Your task to perform on an android device: change the clock style Image 0: 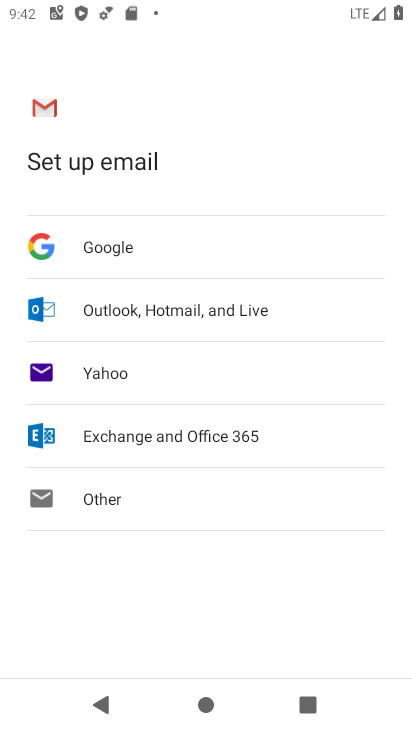
Step 0: press home button
Your task to perform on an android device: change the clock style Image 1: 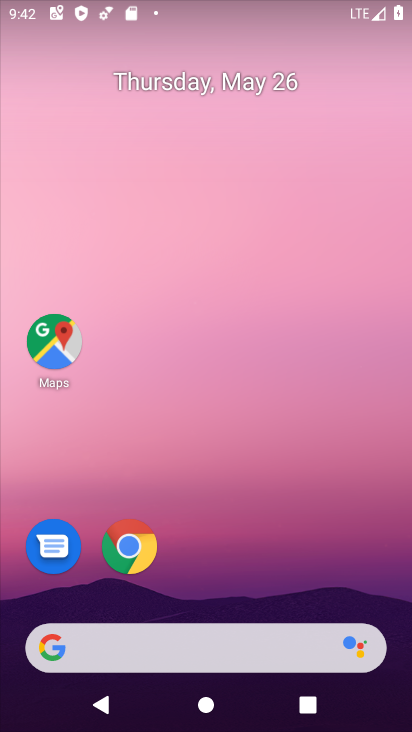
Step 1: drag from (387, 557) to (402, 154)
Your task to perform on an android device: change the clock style Image 2: 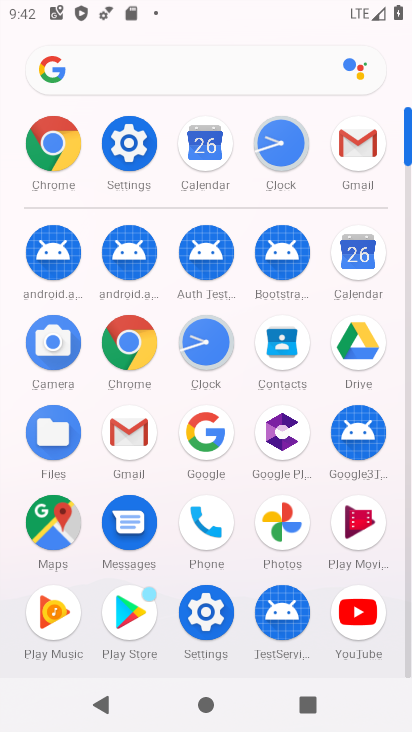
Step 2: click (210, 351)
Your task to perform on an android device: change the clock style Image 3: 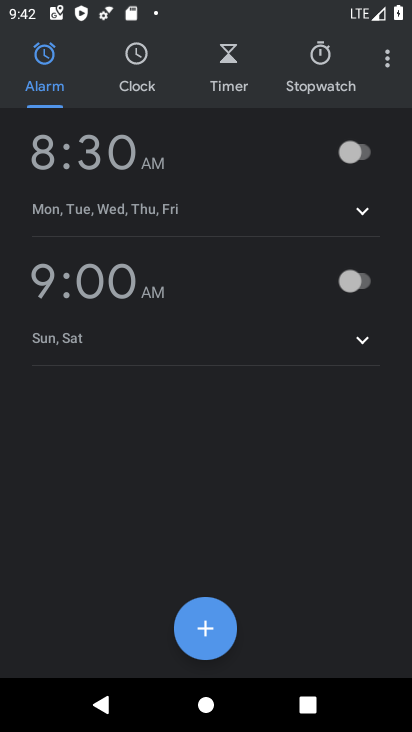
Step 3: drag from (389, 66) to (263, 107)
Your task to perform on an android device: change the clock style Image 4: 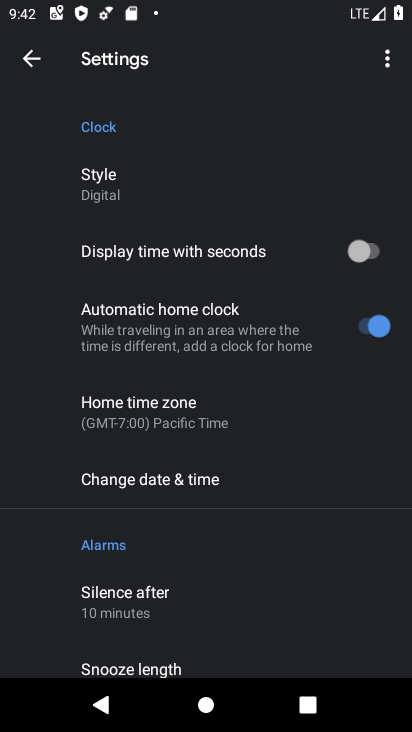
Step 4: click (114, 186)
Your task to perform on an android device: change the clock style Image 5: 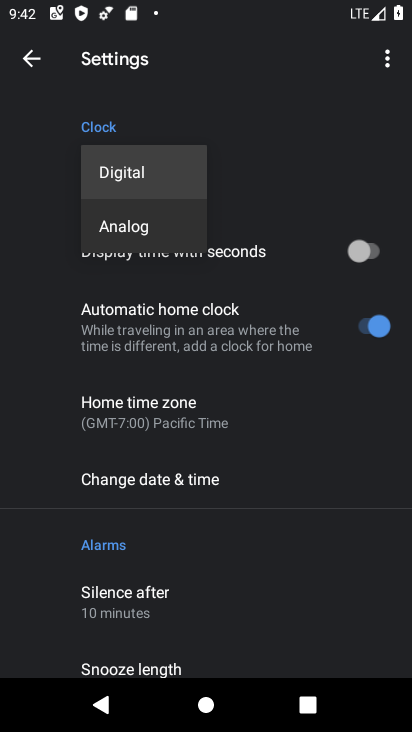
Step 5: click (140, 224)
Your task to perform on an android device: change the clock style Image 6: 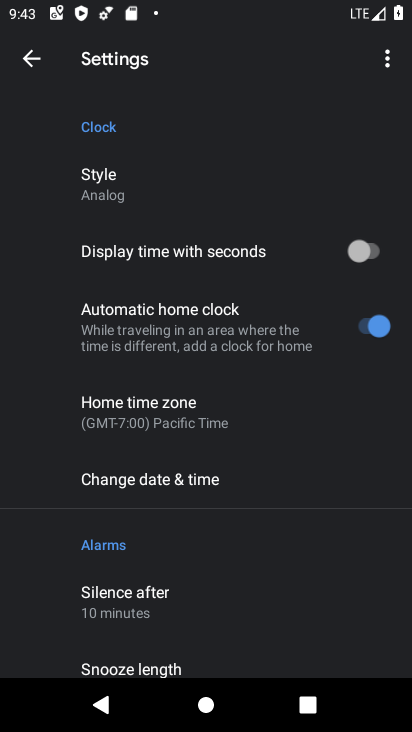
Step 6: task complete